Your task to perform on an android device: Add "bose soundlink" to the cart on target.com, then select checkout. Image 0: 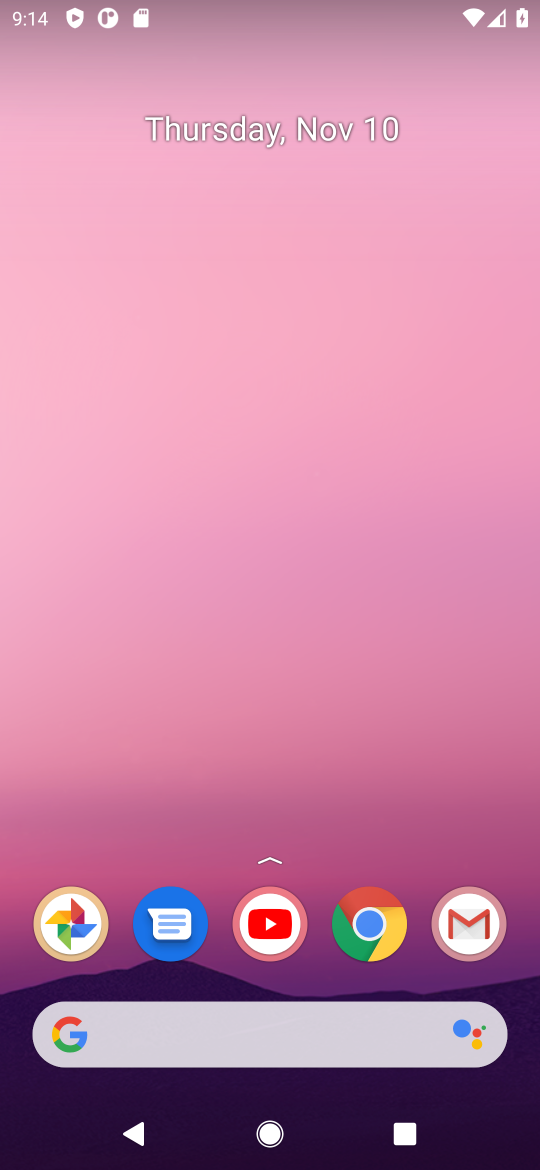
Step 0: click (370, 925)
Your task to perform on an android device: Add "bose soundlink" to the cart on target.com, then select checkout. Image 1: 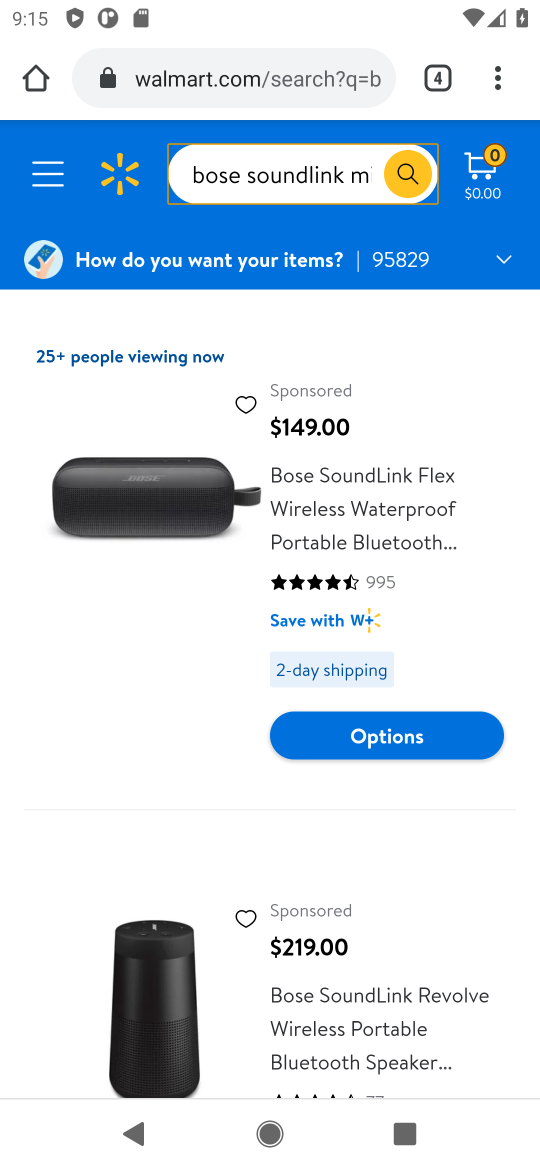
Step 1: click (275, 89)
Your task to perform on an android device: Add "bose soundlink" to the cart on target.com, then select checkout. Image 2: 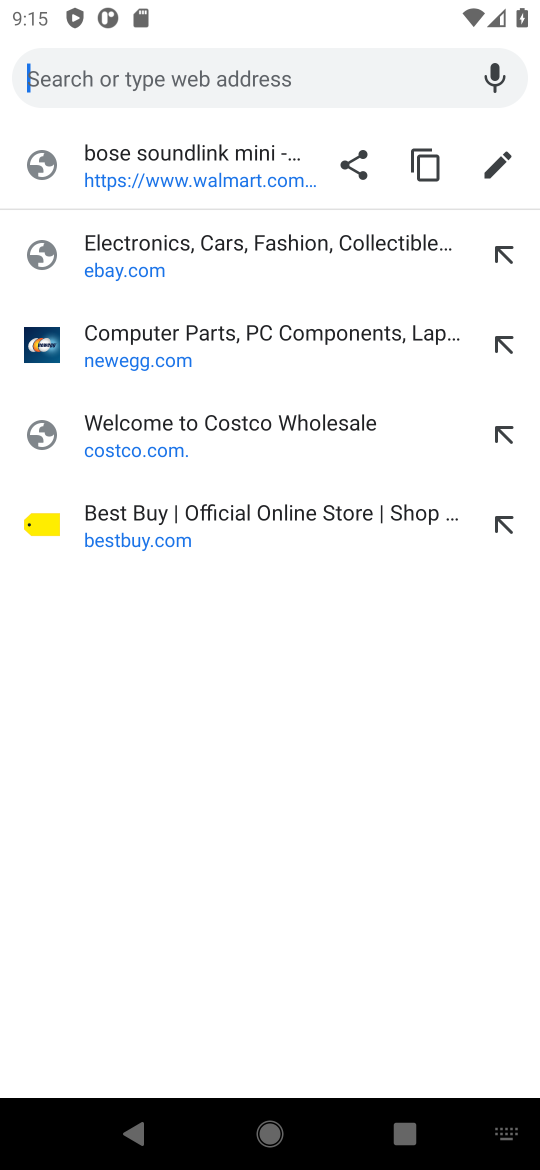
Step 2: type "target.com"
Your task to perform on an android device: Add "bose soundlink" to the cart on target.com, then select checkout. Image 3: 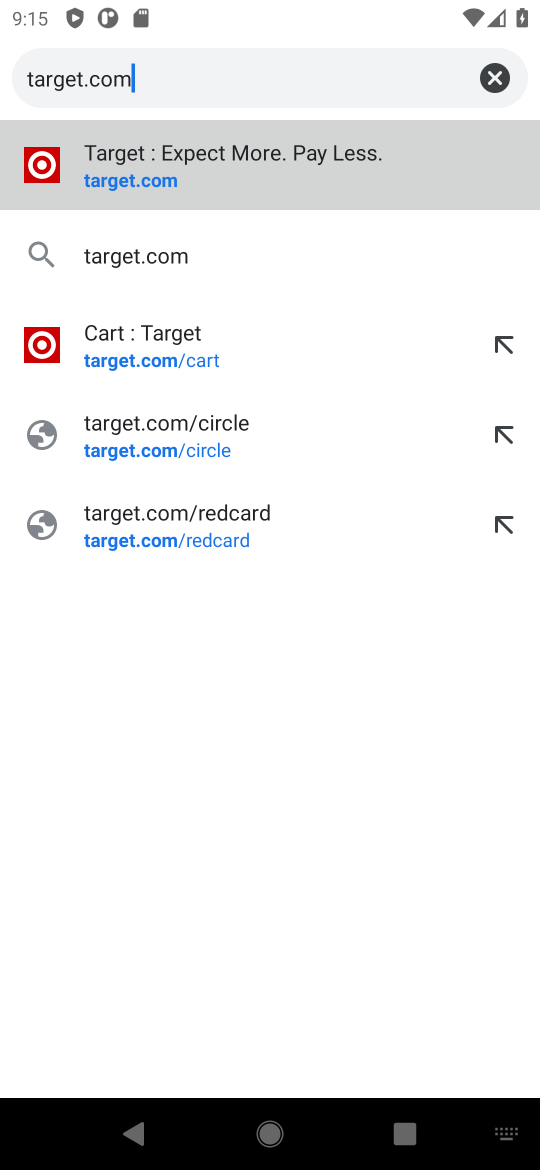
Step 3: click (143, 182)
Your task to perform on an android device: Add "bose soundlink" to the cart on target.com, then select checkout. Image 4: 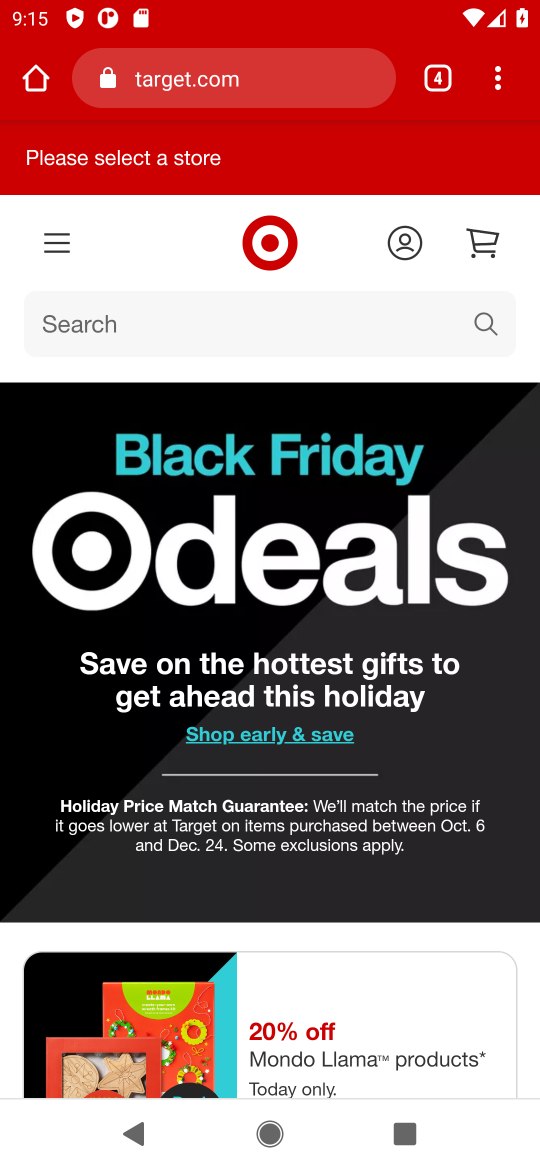
Step 4: click (473, 326)
Your task to perform on an android device: Add "bose soundlink" to the cart on target.com, then select checkout. Image 5: 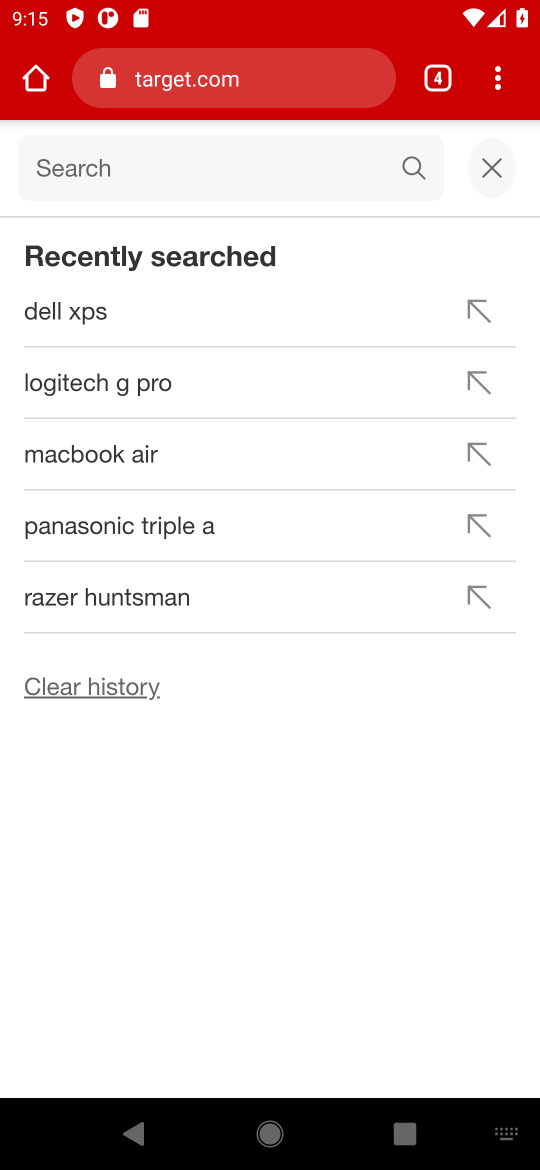
Step 5: type "bose soundlink"
Your task to perform on an android device: Add "bose soundlink" to the cart on target.com, then select checkout. Image 6: 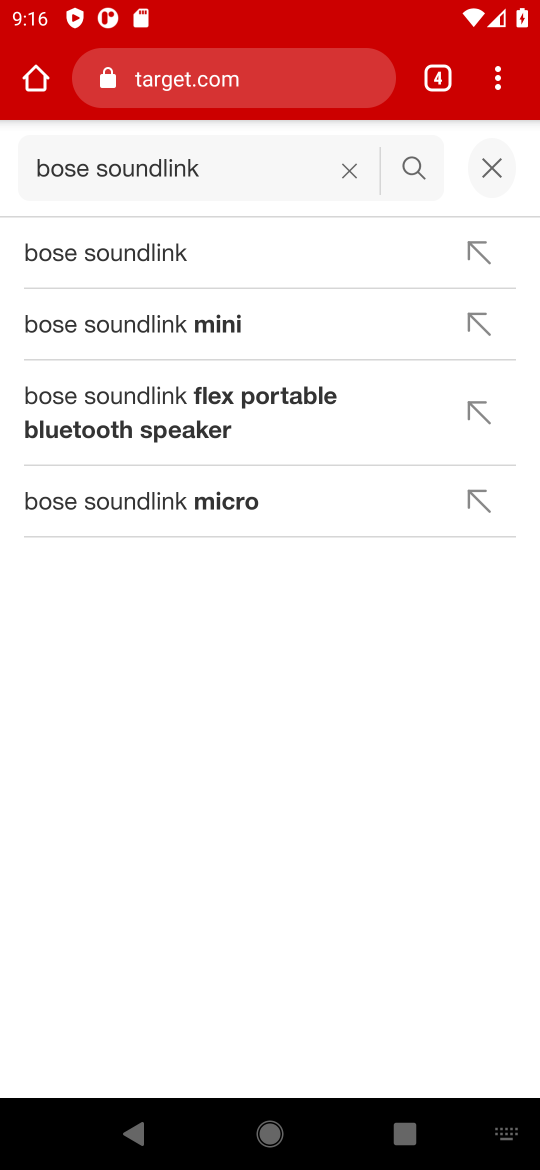
Step 6: click (150, 261)
Your task to perform on an android device: Add "bose soundlink" to the cart on target.com, then select checkout. Image 7: 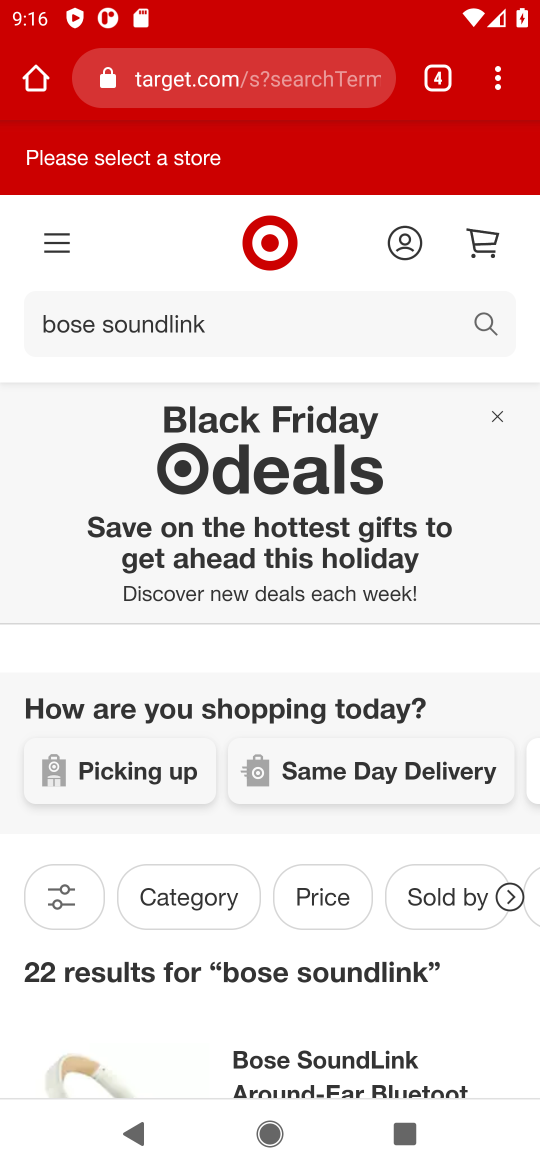
Step 7: drag from (256, 872) to (232, 490)
Your task to perform on an android device: Add "bose soundlink" to the cart on target.com, then select checkout. Image 8: 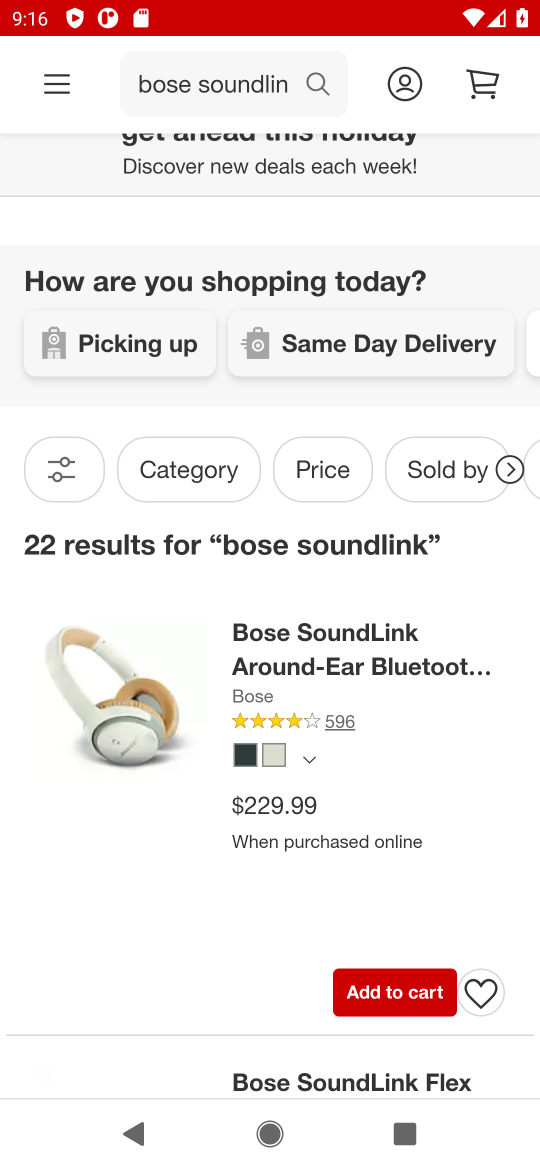
Step 8: click (382, 998)
Your task to perform on an android device: Add "bose soundlink" to the cart on target.com, then select checkout. Image 9: 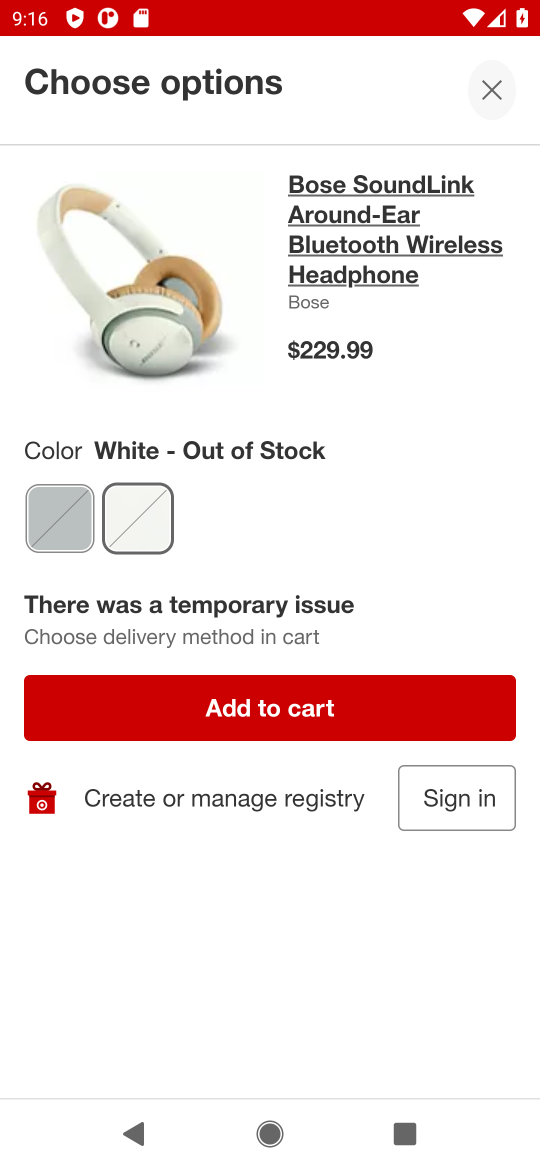
Step 9: click (239, 718)
Your task to perform on an android device: Add "bose soundlink" to the cart on target.com, then select checkout. Image 10: 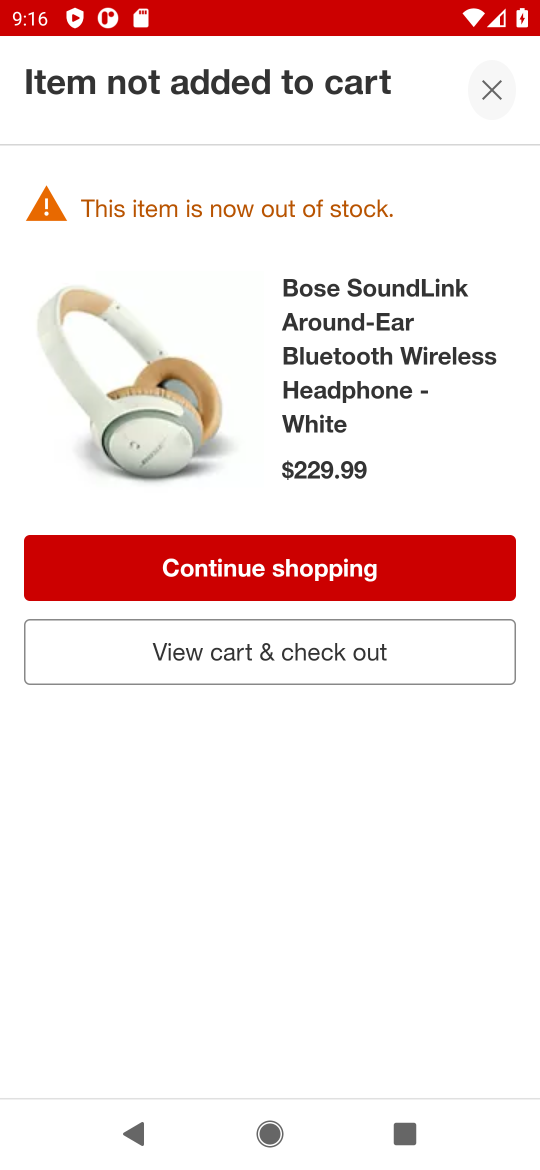
Step 10: click (233, 666)
Your task to perform on an android device: Add "bose soundlink" to the cart on target.com, then select checkout. Image 11: 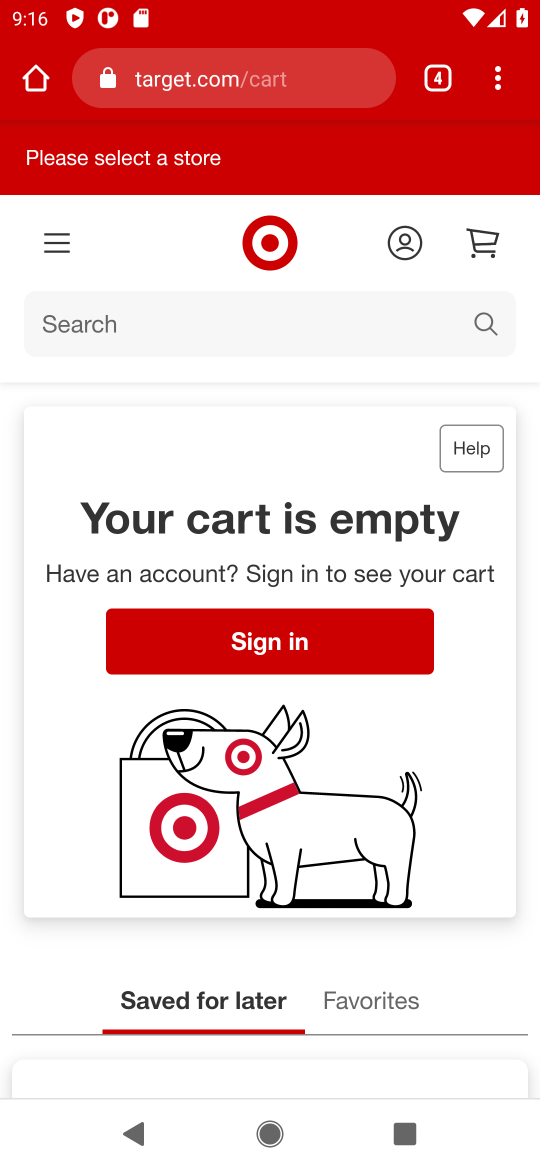
Step 11: task complete